Your task to perform on an android device: turn notification dots on Image 0: 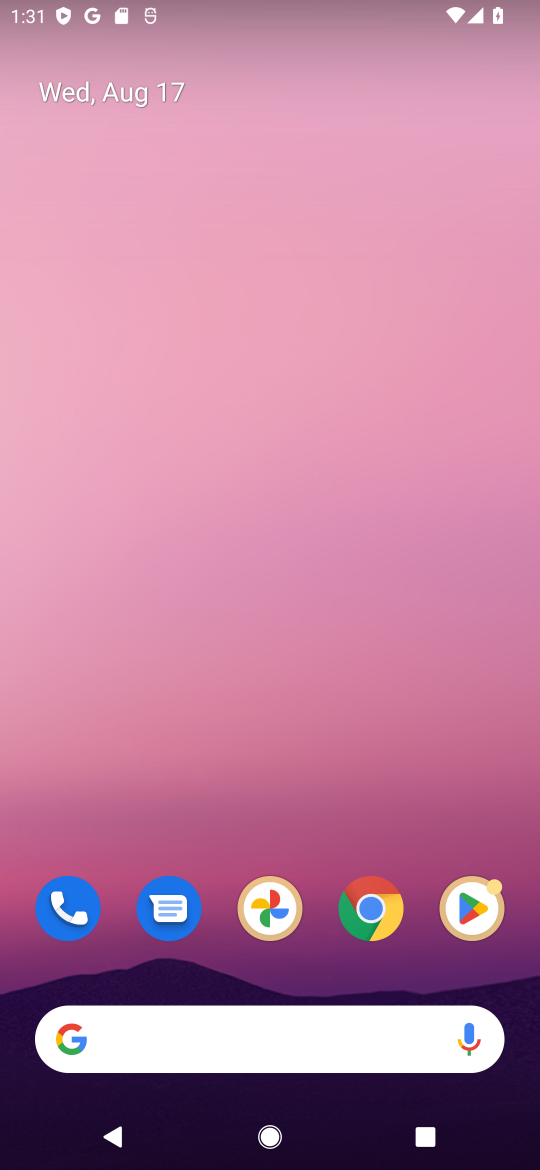
Step 0: press home button
Your task to perform on an android device: turn notification dots on Image 1: 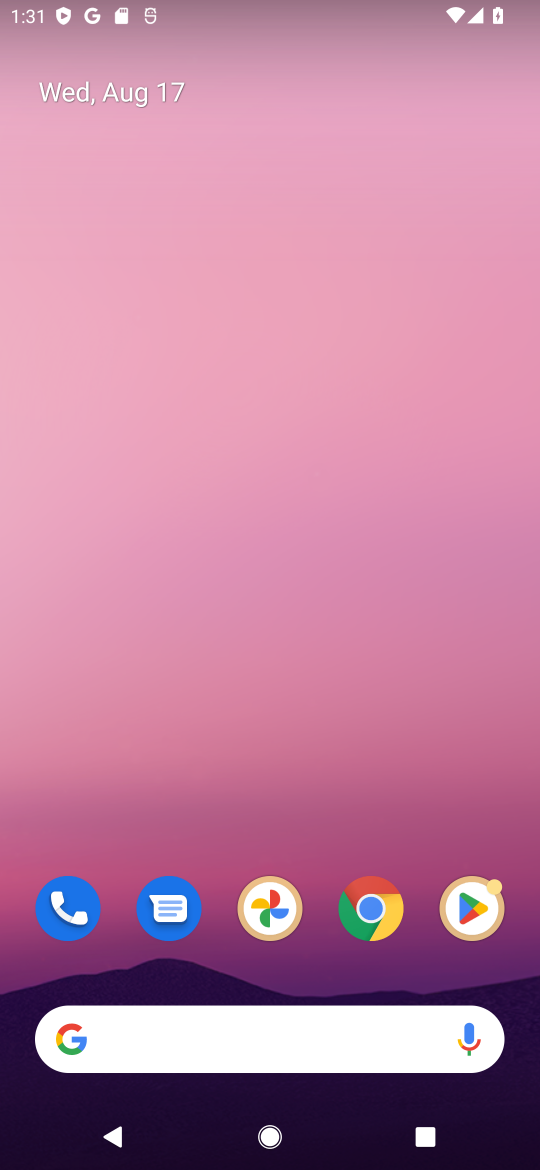
Step 1: drag from (322, 844) to (324, 55)
Your task to perform on an android device: turn notification dots on Image 2: 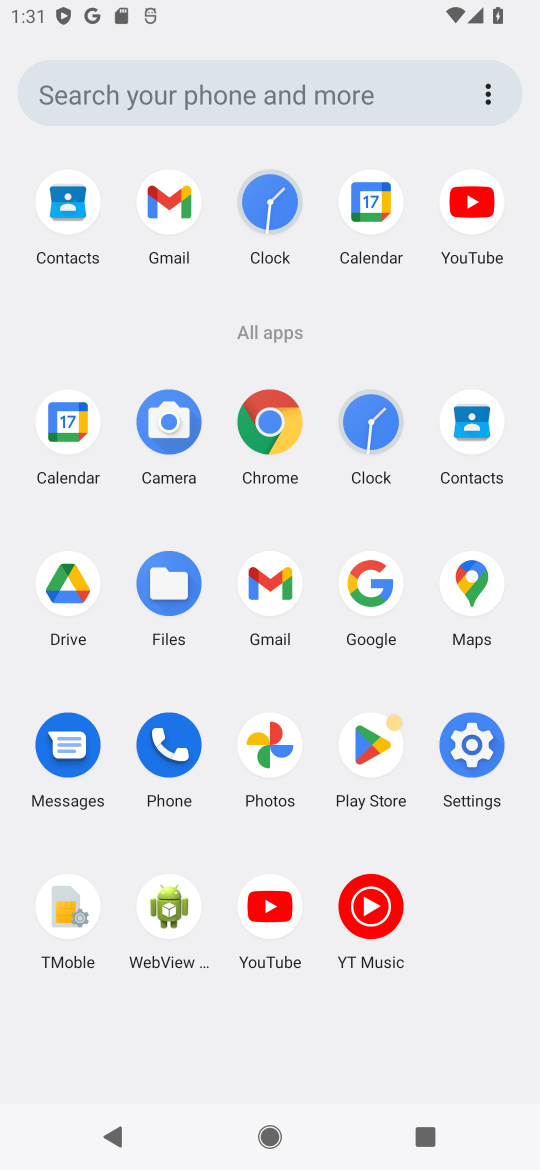
Step 2: click (456, 746)
Your task to perform on an android device: turn notification dots on Image 3: 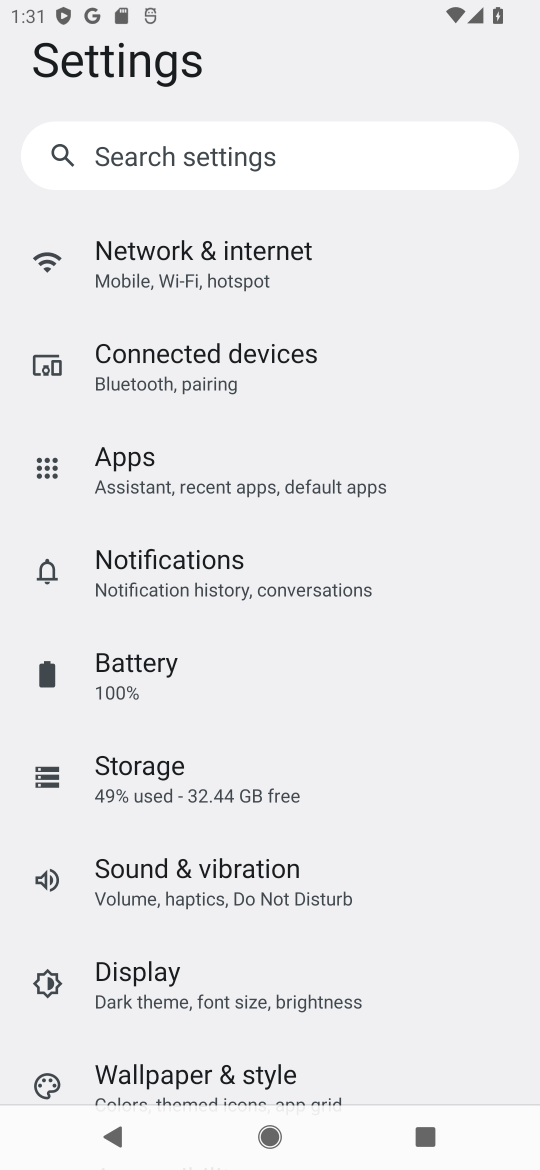
Step 3: click (130, 596)
Your task to perform on an android device: turn notification dots on Image 4: 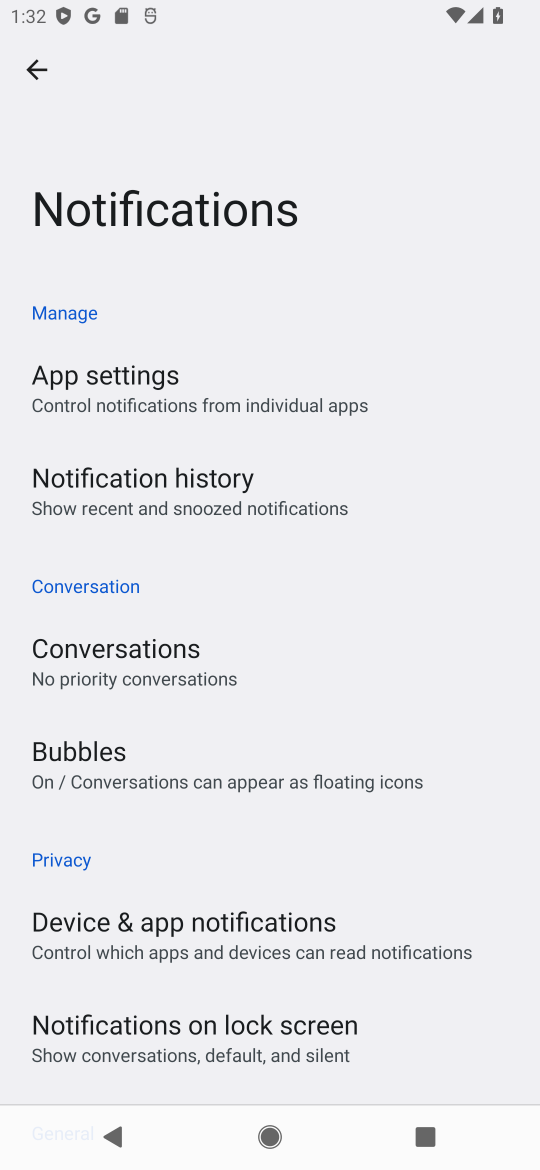
Step 4: task complete